Your task to perform on an android device: open app "Facebook" (install if not already installed) Image 0: 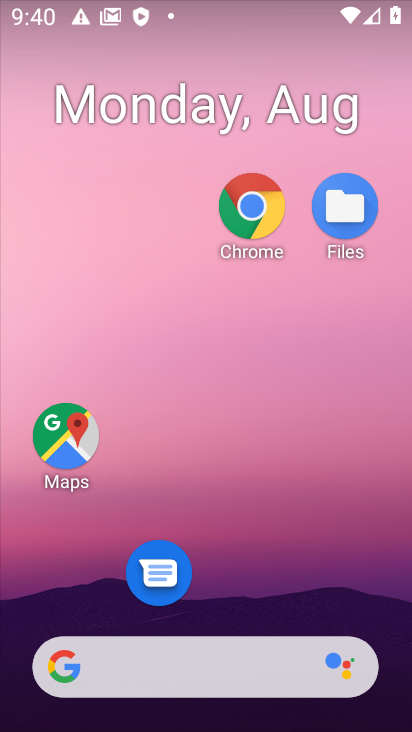
Step 0: drag from (242, 629) to (221, 79)
Your task to perform on an android device: open app "Facebook" (install if not already installed) Image 1: 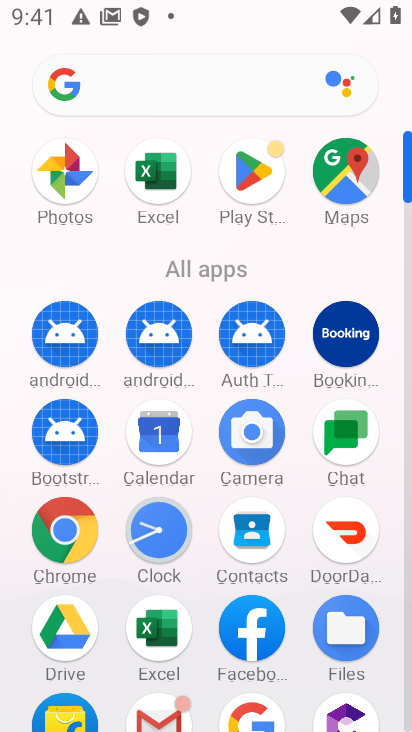
Step 1: click (261, 163)
Your task to perform on an android device: open app "Facebook" (install if not already installed) Image 2: 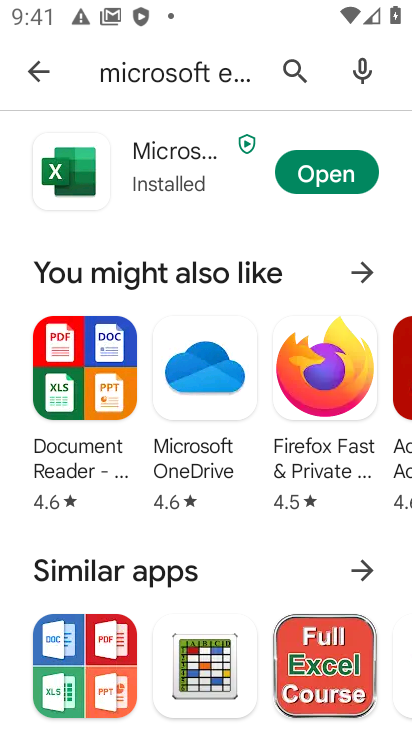
Step 2: click (296, 64)
Your task to perform on an android device: open app "Facebook" (install if not already installed) Image 3: 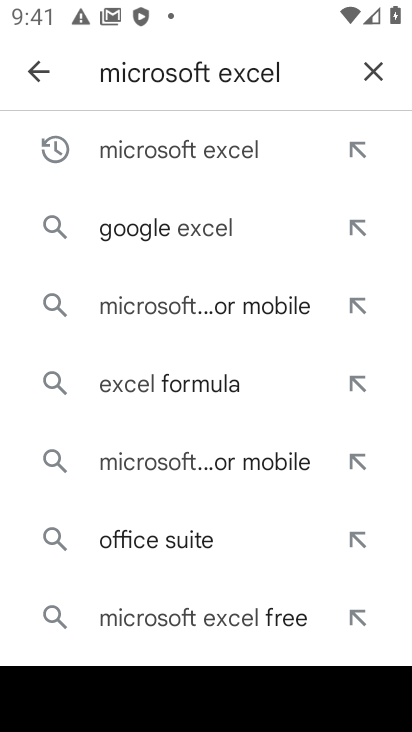
Step 3: click (377, 78)
Your task to perform on an android device: open app "Facebook" (install if not already installed) Image 4: 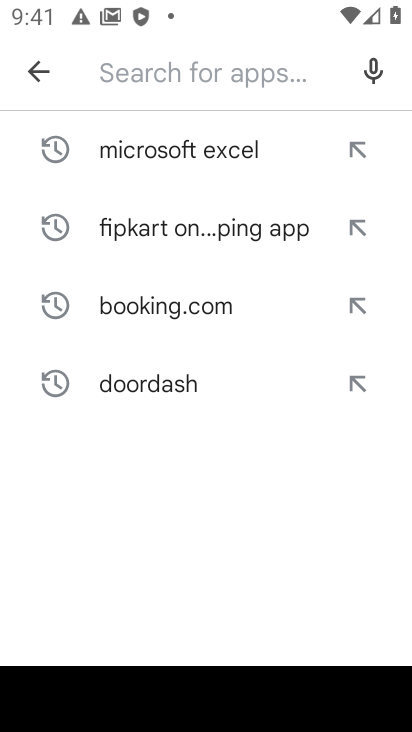
Step 4: type "facebook"
Your task to perform on an android device: open app "Facebook" (install if not already installed) Image 5: 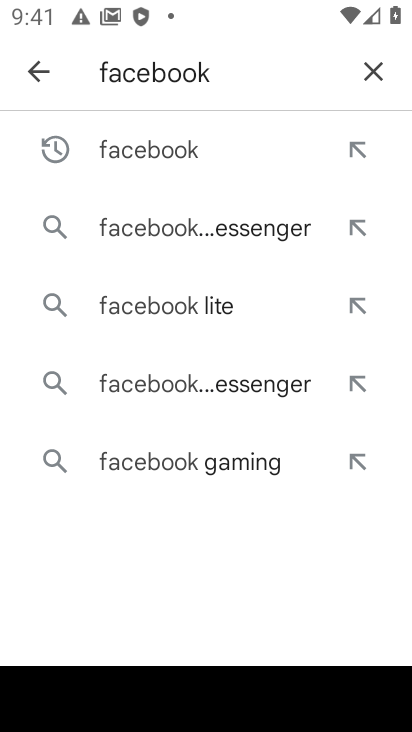
Step 5: click (143, 142)
Your task to perform on an android device: open app "Facebook" (install if not already installed) Image 6: 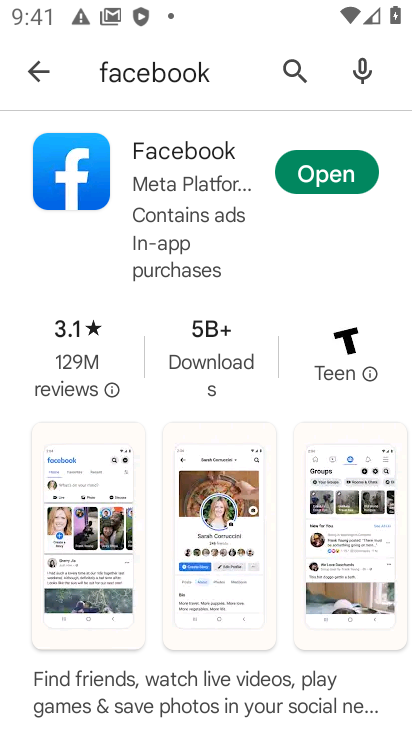
Step 6: click (347, 171)
Your task to perform on an android device: open app "Facebook" (install if not already installed) Image 7: 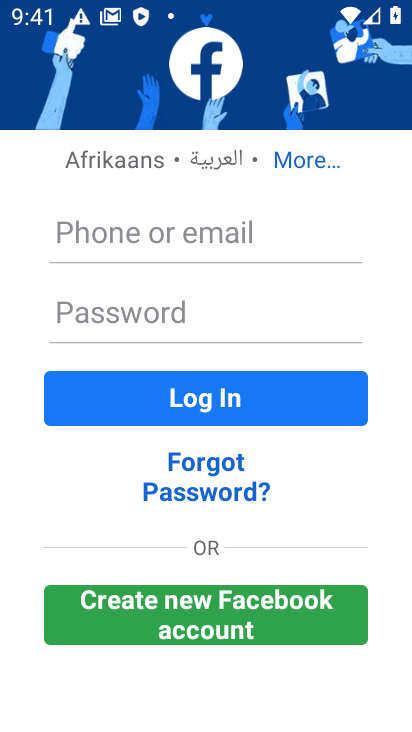
Step 7: task complete